Your task to perform on an android device: turn on showing notifications on the lock screen Image 0: 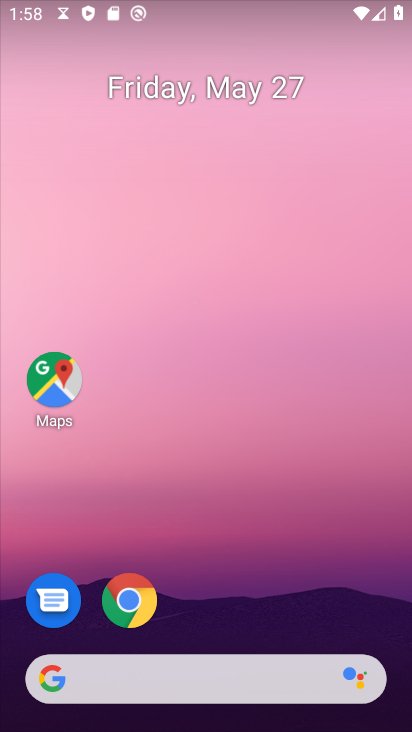
Step 0: drag from (238, 534) to (150, 70)
Your task to perform on an android device: turn on showing notifications on the lock screen Image 1: 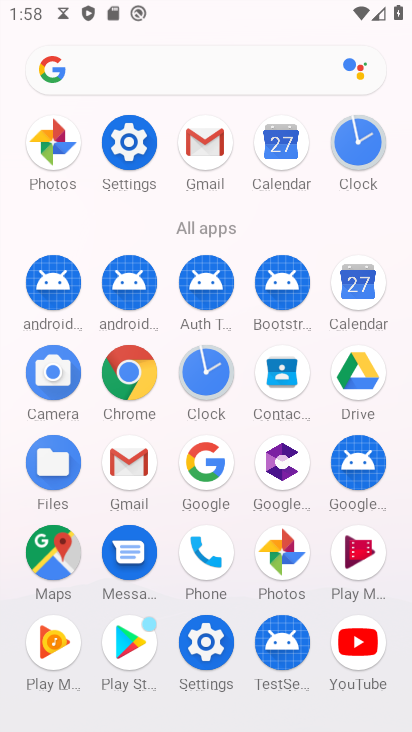
Step 1: drag from (11, 534) to (2, 229)
Your task to perform on an android device: turn on showing notifications on the lock screen Image 2: 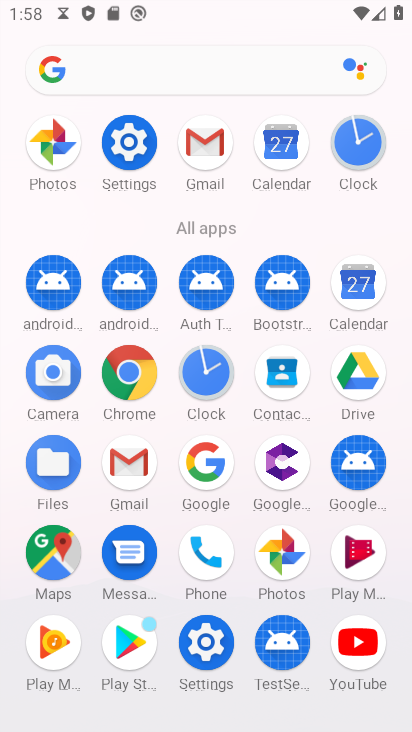
Step 2: click (202, 637)
Your task to perform on an android device: turn on showing notifications on the lock screen Image 3: 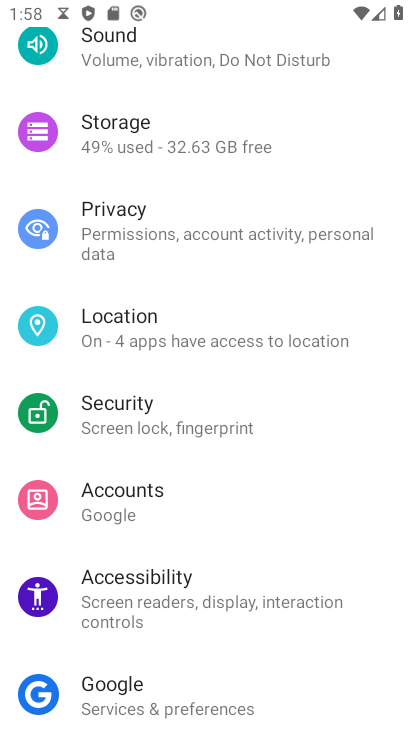
Step 3: drag from (236, 185) to (235, 604)
Your task to perform on an android device: turn on showing notifications on the lock screen Image 4: 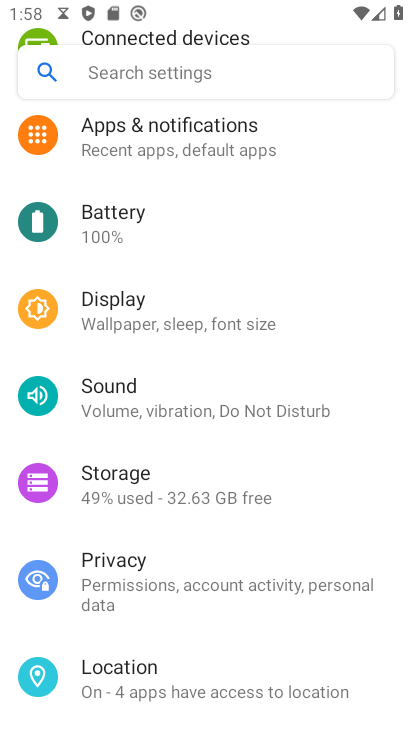
Step 4: click (218, 124)
Your task to perform on an android device: turn on showing notifications on the lock screen Image 5: 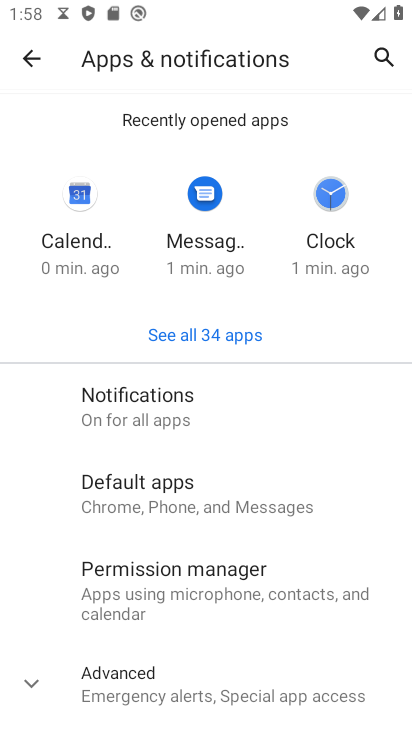
Step 5: click (30, 686)
Your task to perform on an android device: turn on showing notifications on the lock screen Image 6: 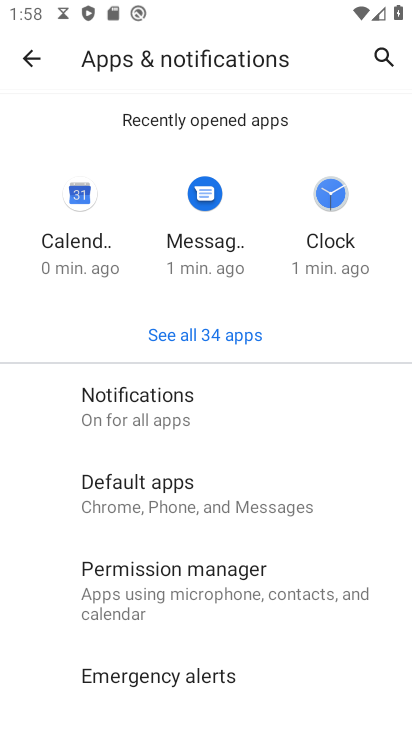
Step 6: click (164, 410)
Your task to perform on an android device: turn on showing notifications on the lock screen Image 7: 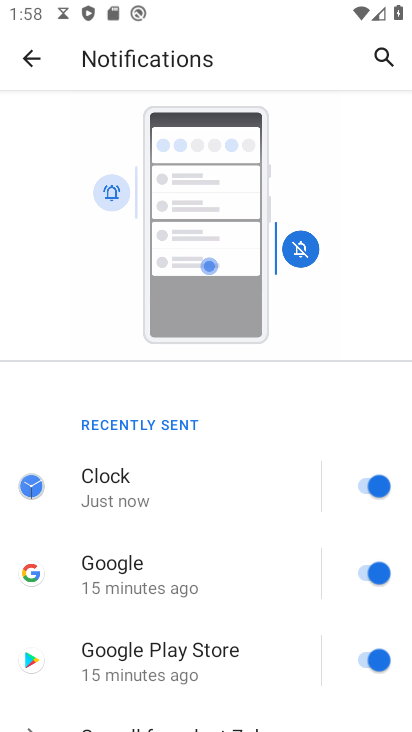
Step 7: drag from (212, 396) to (191, 184)
Your task to perform on an android device: turn on showing notifications on the lock screen Image 8: 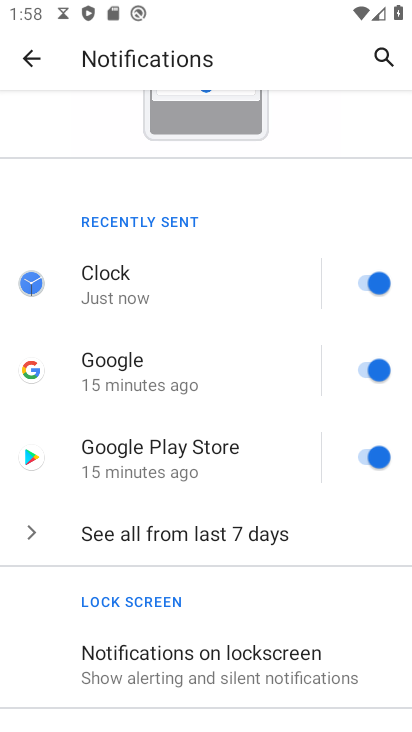
Step 8: drag from (198, 552) to (199, 185)
Your task to perform on an android device: turn on showing notifications on the lock screen Image 9: 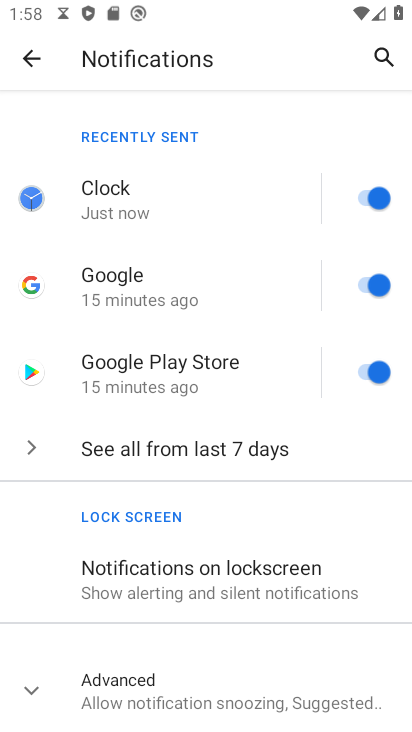
Step 9: click (112, 695)
Your task to perform on an android device: turn on showing notifications on the lock screen Image 10: 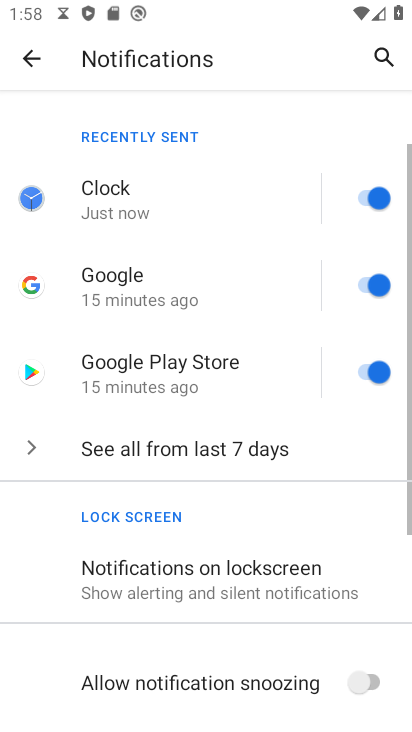
Step 10: drag from (257, 643) to (229, 265)
Your task to perform on an android device: turn on showing notifications on the lock screen Image 11: 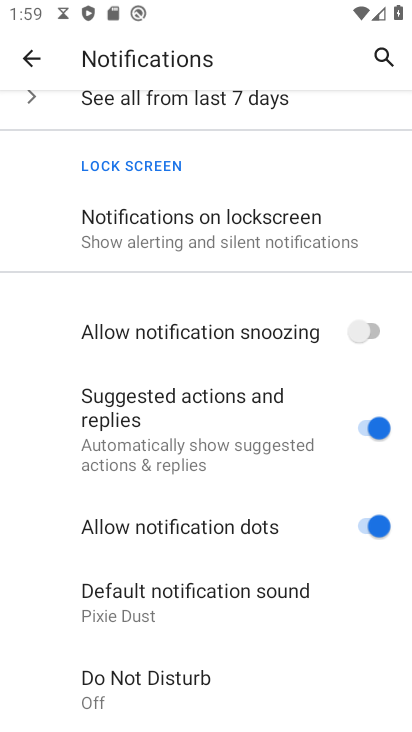
Step 11: click (205, 258)
Your task to perform on an android device: turn on showing notifications on the lock screen Image 12: 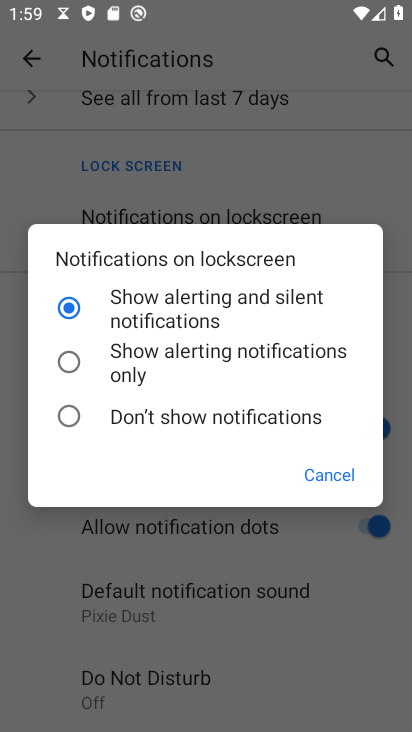
Step 12: click (154, 304)
Your task to perform on an android device: turn on showing notifications on the lock screen Image 13: 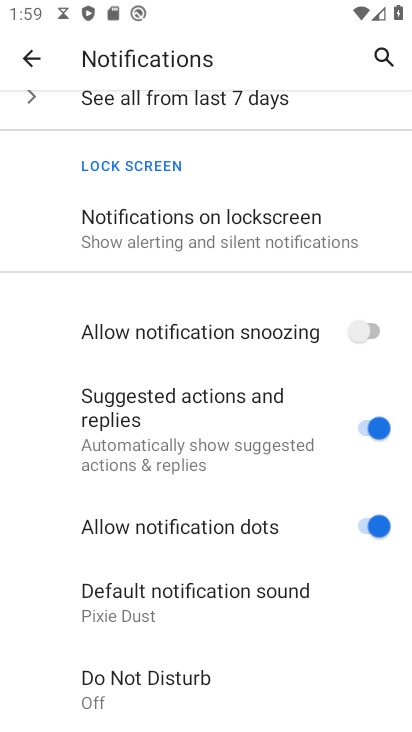
Step 13: task complete